Your task to perform on an android device: turn off notifications in google photos Image 0: 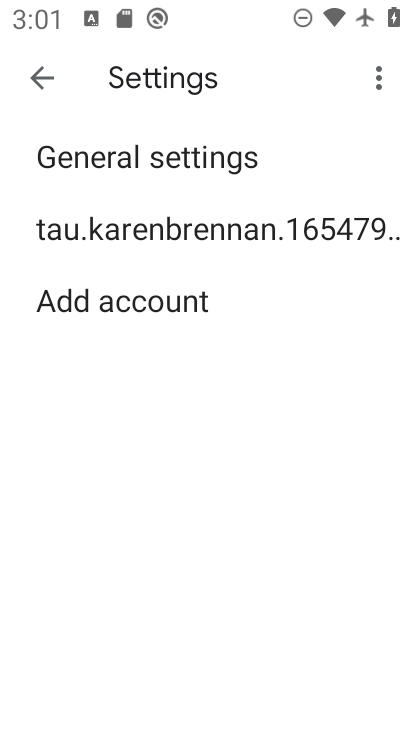
Step 0: press home button
Your task to perform on an android device: turn off notifications in google photos Image 1: 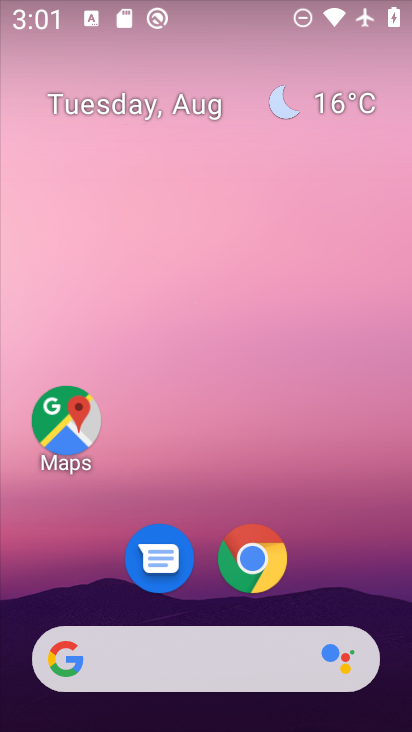
Step 1: drag from (208, 502) to (232, 16)
Your task to perform on an android device: turn off notifications in google photos Image 2: 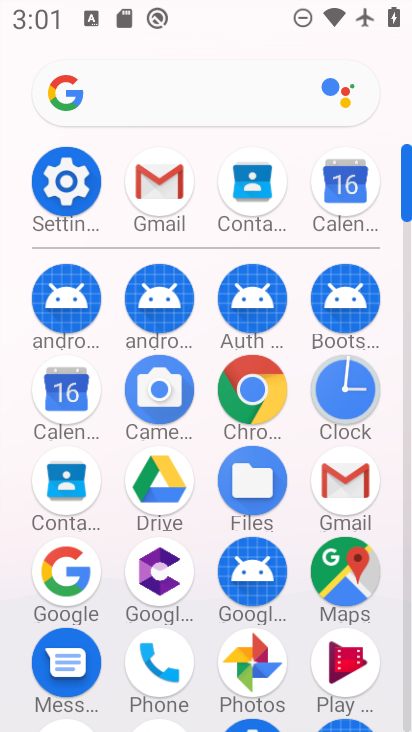
Step 2: click (243, 649)
Your task to perform on an android device: turn off notifications in google photos Image 3: 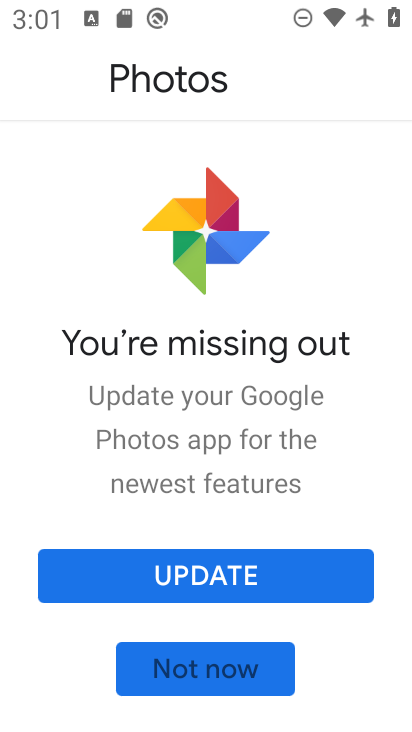
Step 3: click (198, 663)
Your task to perform on an android device: turn off notifications in google photos Image 4: 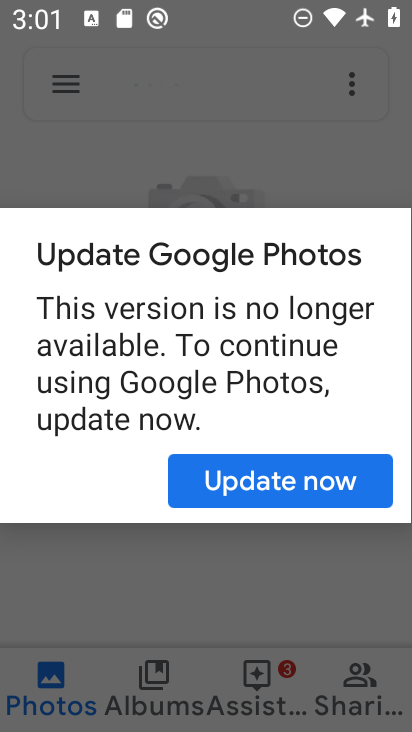
Step 4: drag from (195, 484) to (307, 484)
Your task to perform on an android device: turn off notifications in google photos Image 5: 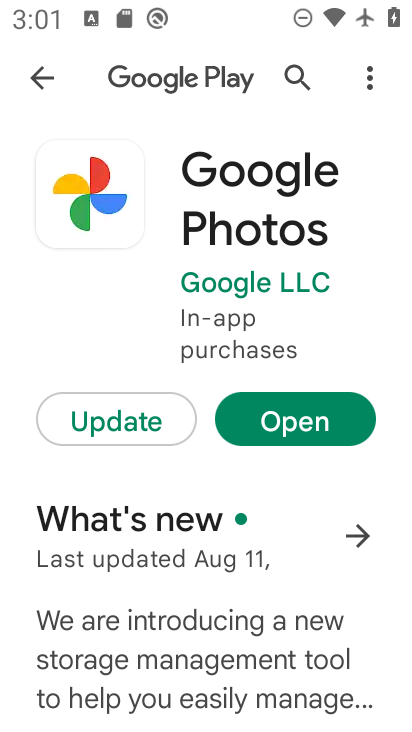
Step 5: click (260, 437)
Your task to perform on an android device: turn off notifications in google photos Image 6: 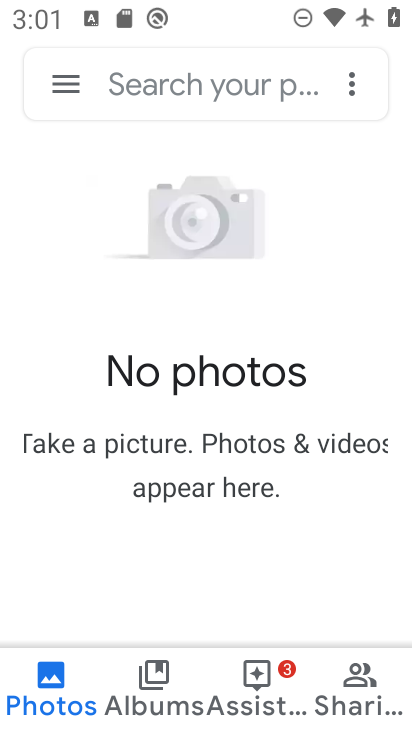
Step 6: click (56, 81)
Your task to perform on an android device: turn off notifications in google photos Image 7: 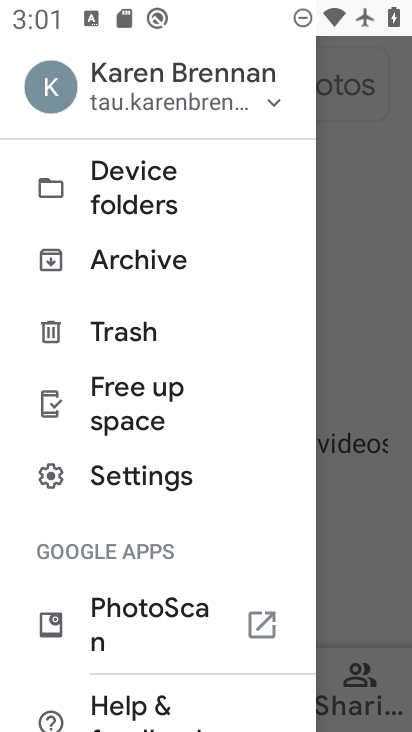
Step 7: drag from (130, 622) to (142, 195)
Your task to perform on an android device: turn off notifications in google photos Image 8: 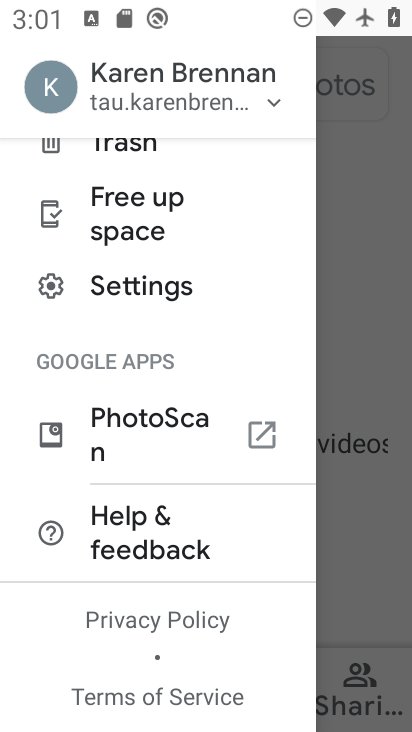
Step 8: click (127, 297)
Your task to perform on an android device: turn off notifications in google photos Image 9: 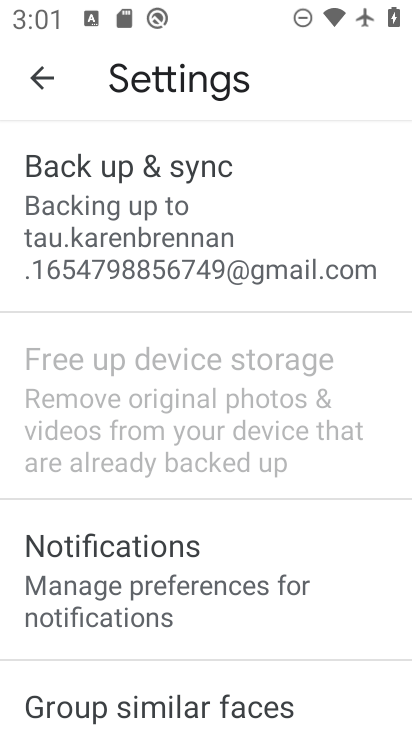
Step 9: drag from (185, 486) to (211, 230)
Your task to perform on an android device: turn off notifications in google photos Image 10: 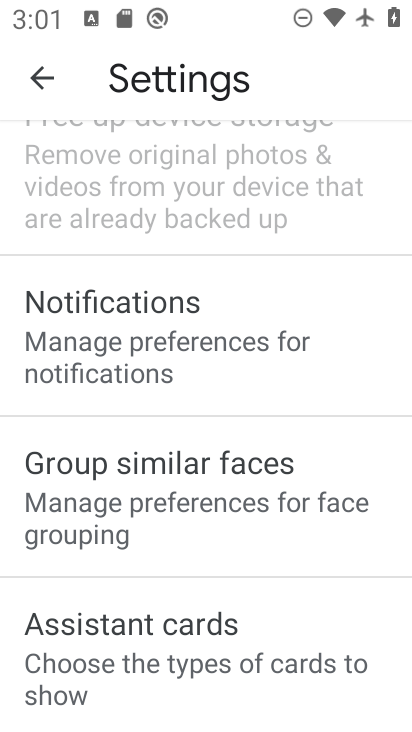
Step 10: drag from (203, 521) to (190, 251)
Your task to perform on an android device: turn off notifications in google photos Image 11: 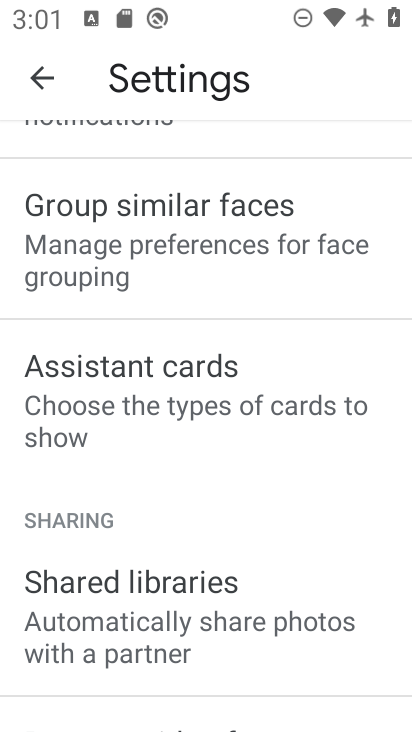
Step 11: drag from (170, 214) to (204, 491)
Your task to perform on an android device: turn off notifications in google photos Image 12: 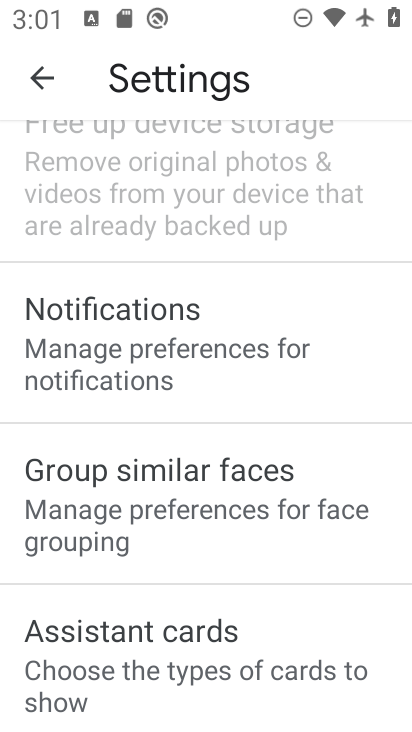
Step 12: click (149, 282)
Your task to perform on an android device: turn off notifications in google photos Image 13: 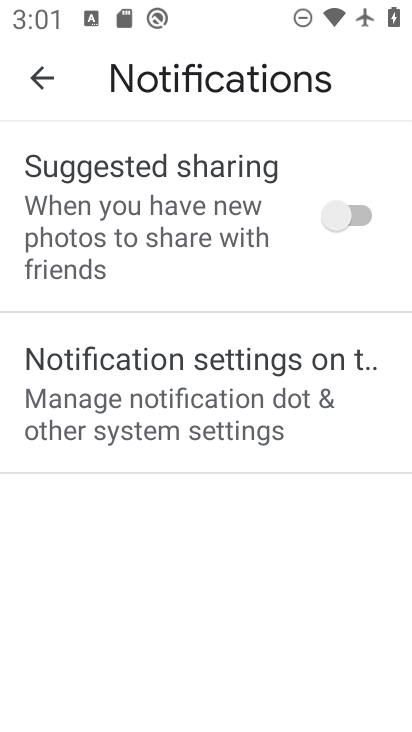
Step 13: click (133, 353)
Your task to perform on an android device: turn off notifications in google photos Image 14: 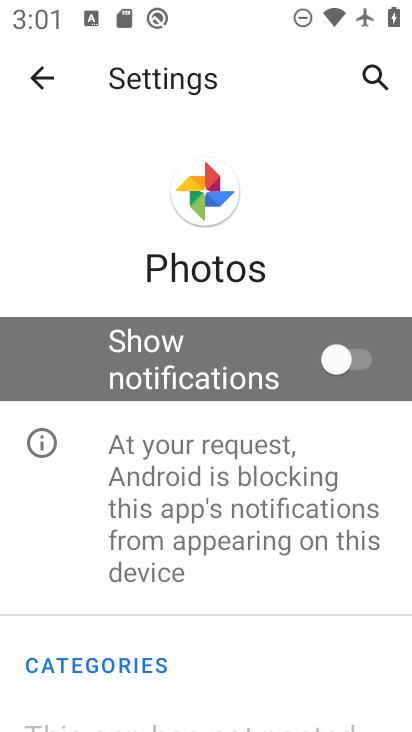
Step 14: task complete